Your task to perform on an android device: turn off location history Image 0: 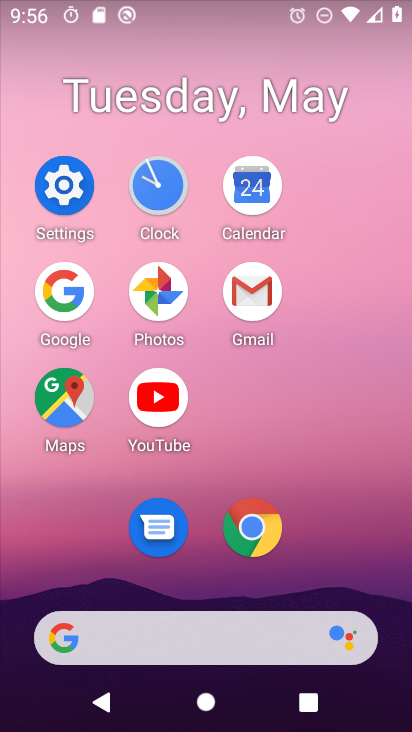
Step 0: click (55, 186)
Your task to perform on an android device: turn off location history Image 1: 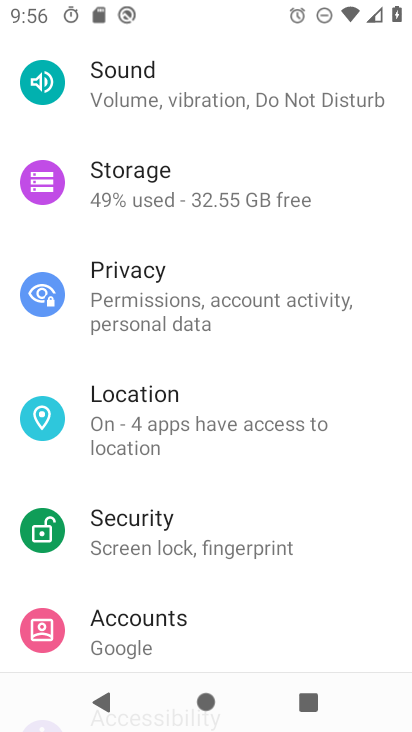
Step 1: drag from (259, 603) to (248, 337)
Your task to perform on an android device: turn off location history Image 2: 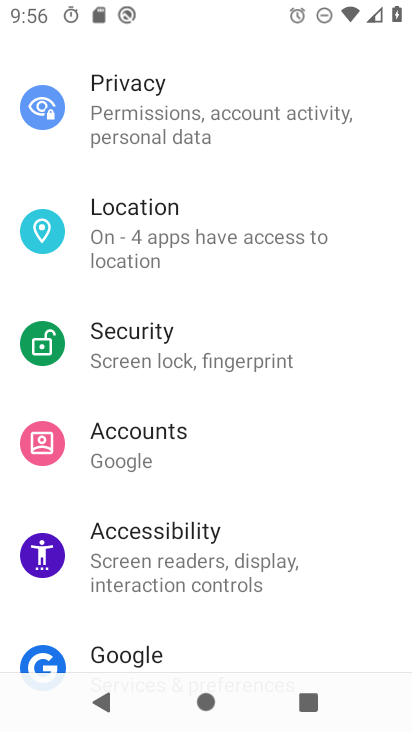
Step 2: click (215, 229)
Your task to perform on an android device: turn off location history Image 3: 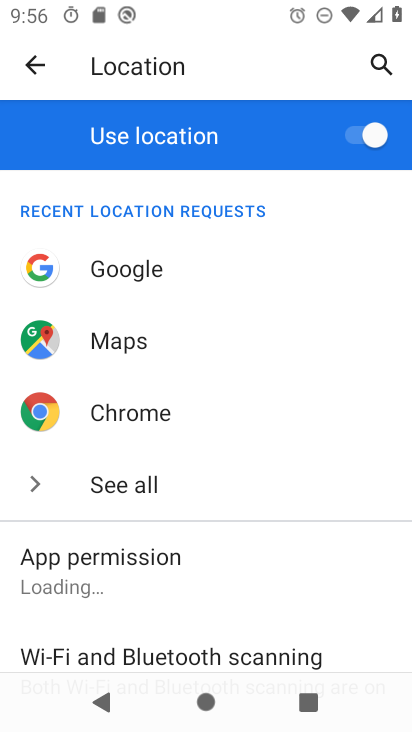
Step 3: drag from (168, 569) to (226, 161)
Your task to perform on an android device: turn off location history Image 4: 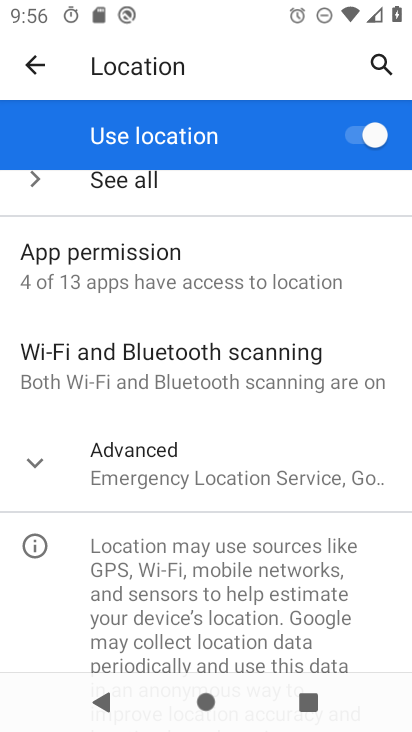
Step 4: click (201, 455)
Your task to perform on an android device: turn off location history Image 5: 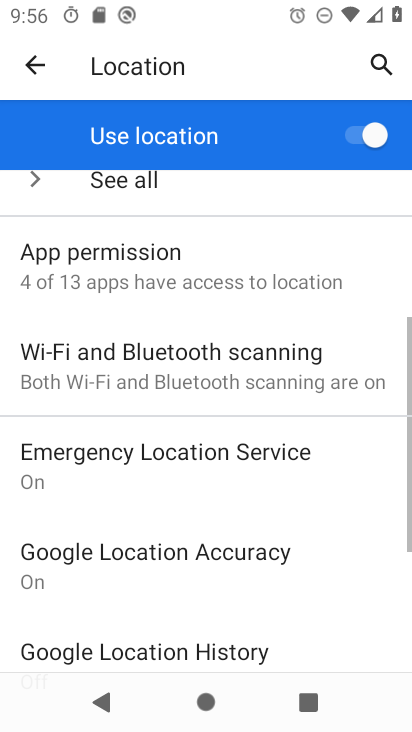
Step 5: drag from (276, 577) to (322, 206)
Your task to perform on an android device: turn off location history Image 6: 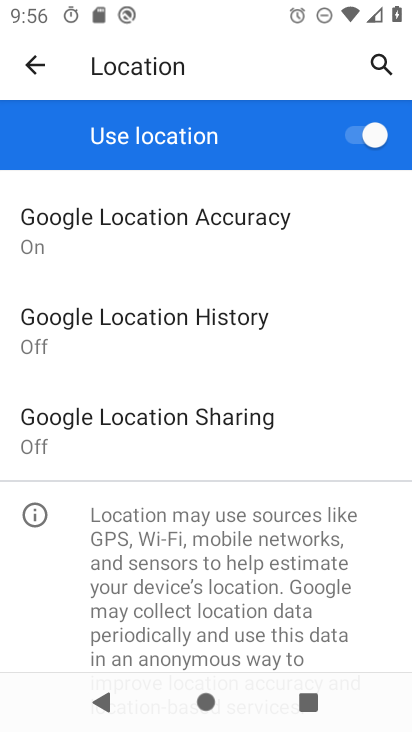
Step 6: click (244, 324)
Your task to perform on an android device: turn off location history Image 7: 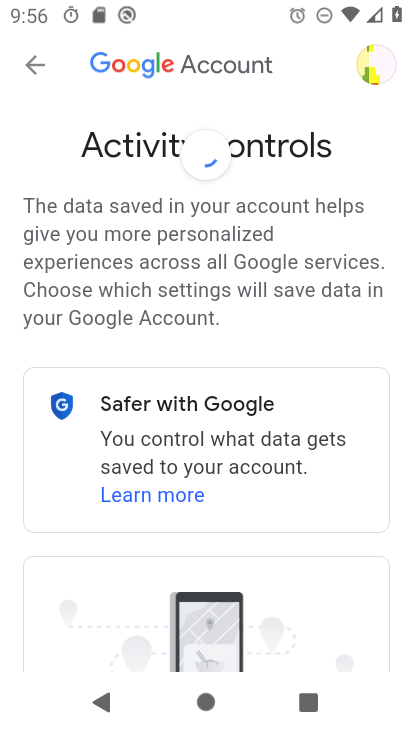
Step 7: task complete